Your task to perform on an android device: turn vacation reply on in the gmail app Image 0: 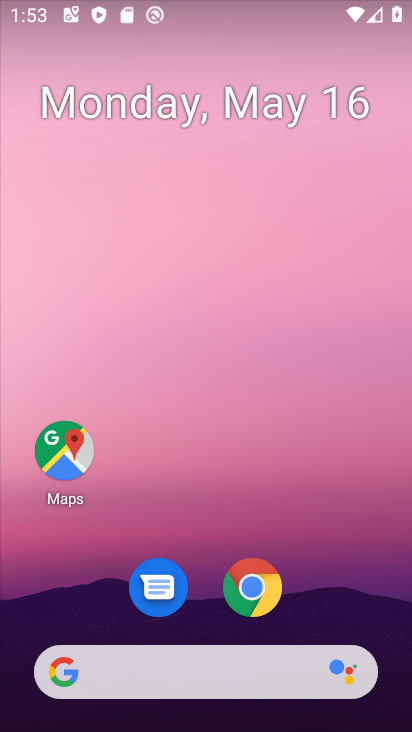
Step 0: drag from (375, 660) to (269, 223)
Your task to perform on an android device: turn vacation reply on in the gmail app Image 1: 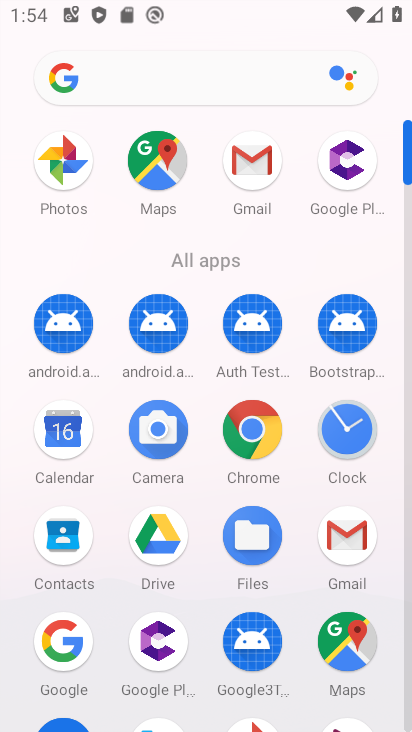
Step 1: click (352, 534)
Your task to perform on an android device: turn vacation reply on in the gmail app Image 2: 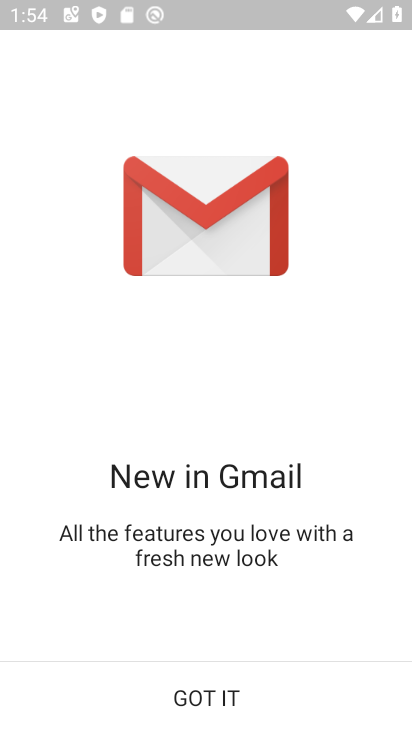
Step 2: click (224, 675)
Your task to perform on an android device: turn vacation reply on in the gmail app Image 3: 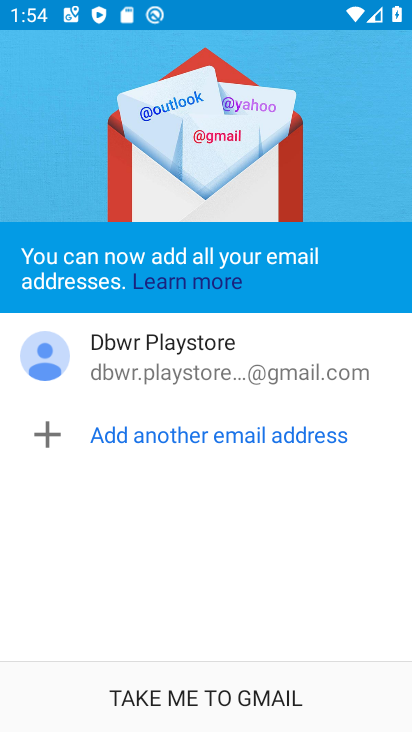
Step 3: click (233, 691)
Your task to perform on an android device: turn vacation reply on in the gmail app Image 4: 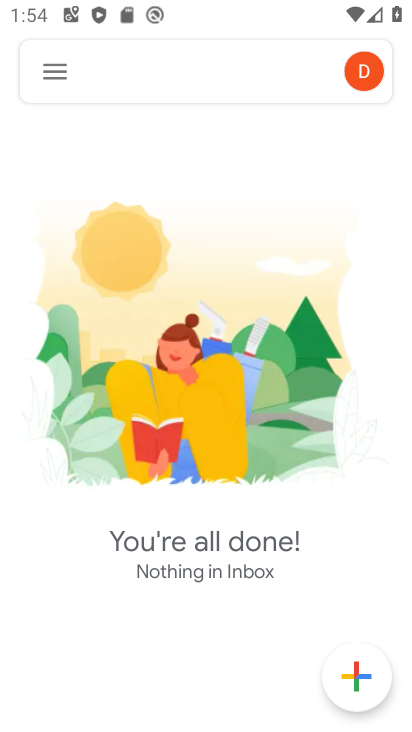
Step 4: click (58, 65)
Your task to perform on an android device: turn vacation reply on in the gmail app Image 5: 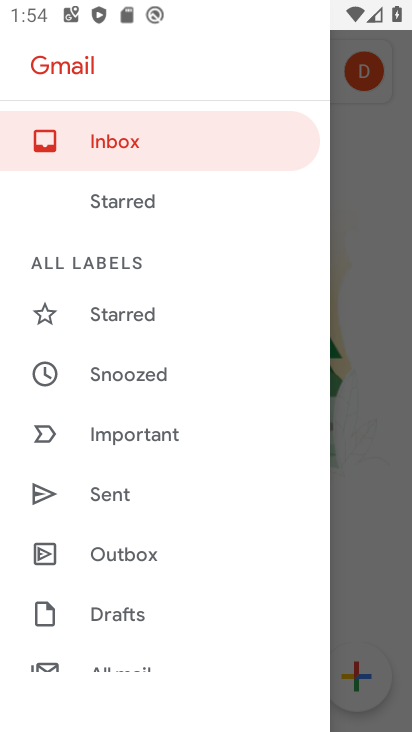
Step 5: drag from (165, 564) to (87, 281)
Your task to perform on an android device: turn vacation reply on in the gmail app Image 6: 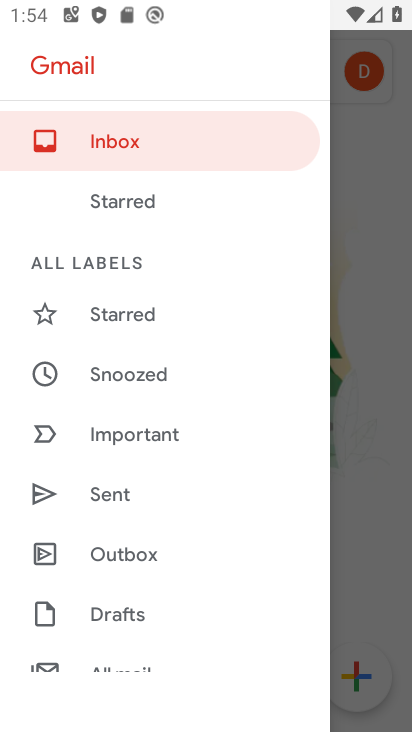
Step 6: drag from (148, 449) to (152, 300)
Your task to perform on an android device: turn vacation reply on in the gmail app Image 7: 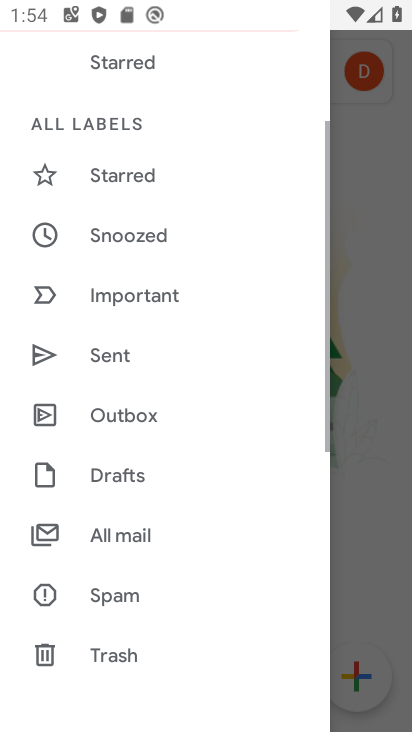
Step 7: drag from (193, 463) to (248, 256)
Your task to perform on an android device: turn vacation reply on in the gmail app Image 8: 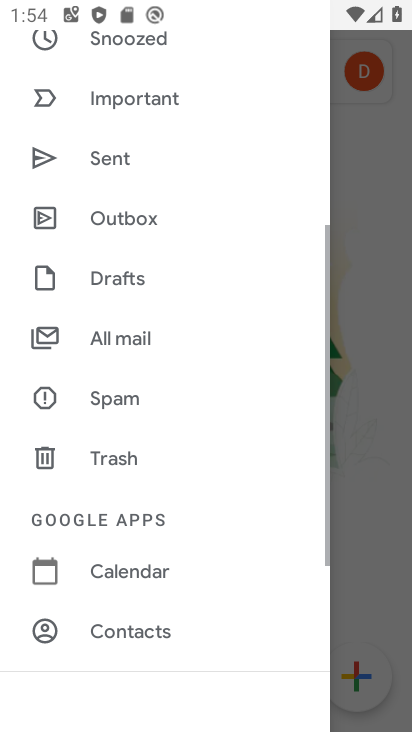
Step 8: drag from (179, 500) to (228, 228)
Your task to perform on an android device: turn vacation reply on in the gmail app Image 9: 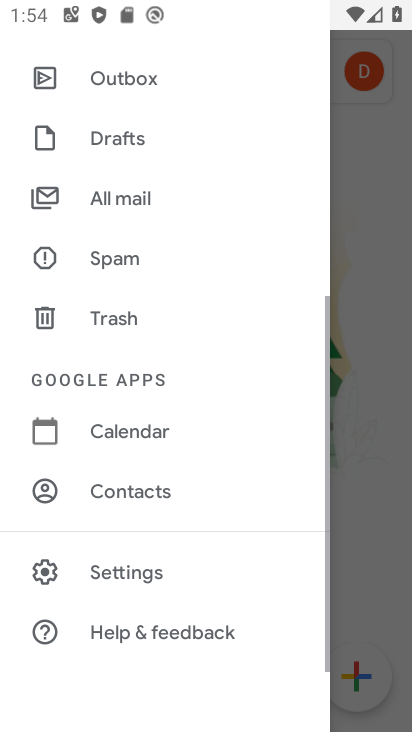
Step 9: click (118, 577)
Your task to perform on an android device: turn vacation reply on in the gmail app Image 10: 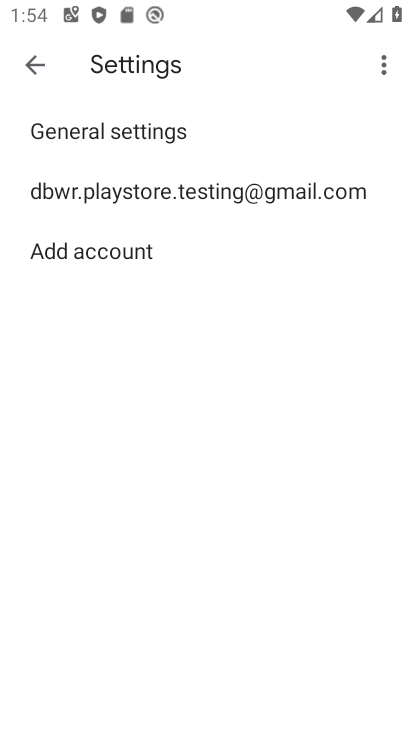
Step 10: click (141, 198)
Your task to perform on an android device: turn vacation reply on in the gmail app Image 11: 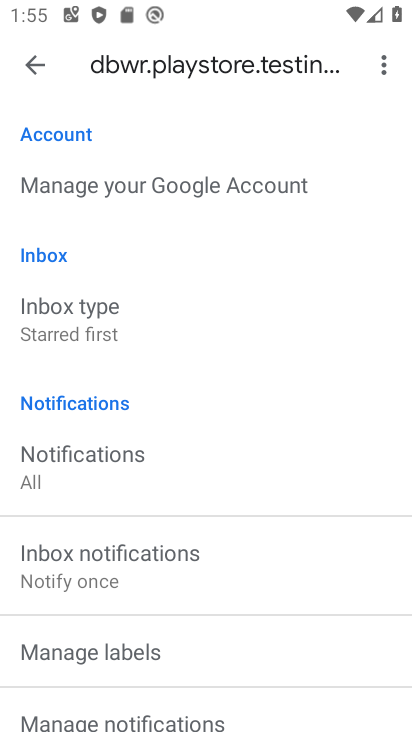
Step 11: drag from (204, 593) to (244, 290)
Your task to perform on an android device: turn vacation reply on in the gmail app Image 12: 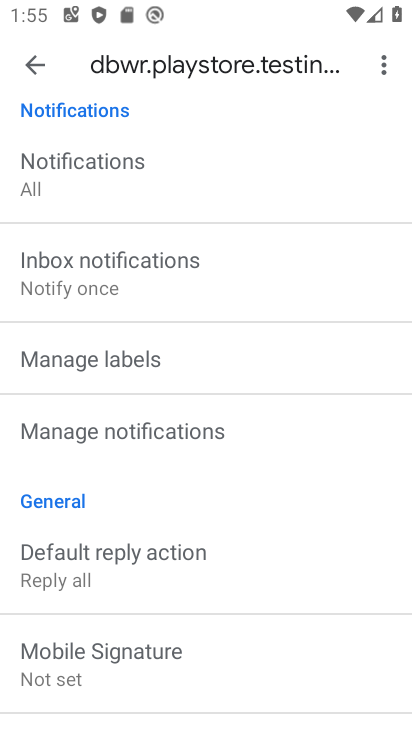
Step 12: drag from (154, 587) to (210, 273)
Your task to perform on an android device: turn vacation reply on in the gmail app Image 13: 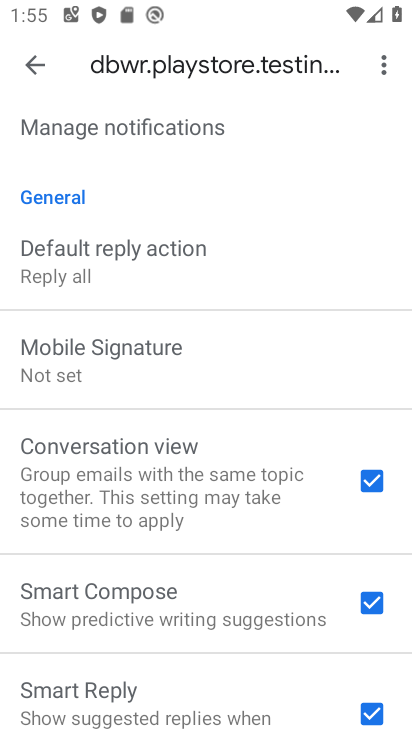
Step 13: drag from (131, 546) to (116, 196)
Your task to perform on an android device: turn vacation reply on in the gmail app Image 14: 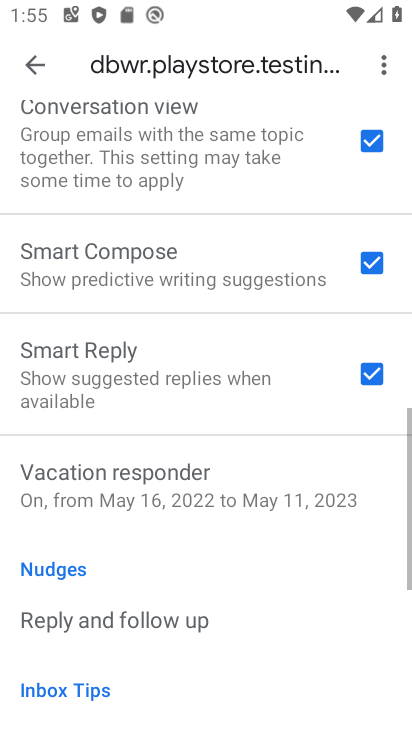
Step 14: drag from (175, 543) to (155, 163)
Your task to perform on an android device: turn vacation reply on in the gmail app Image 15: 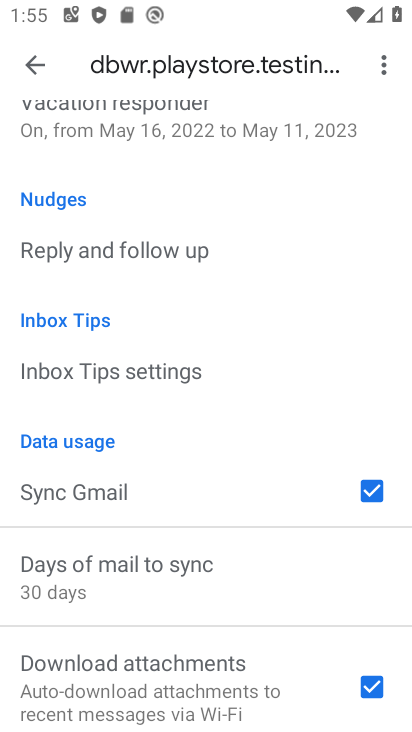
Step 15: drag from (98, 238) to (102, 591)
Your task to perform on an android device: turn vacation reply on in the gmail app Image 16: 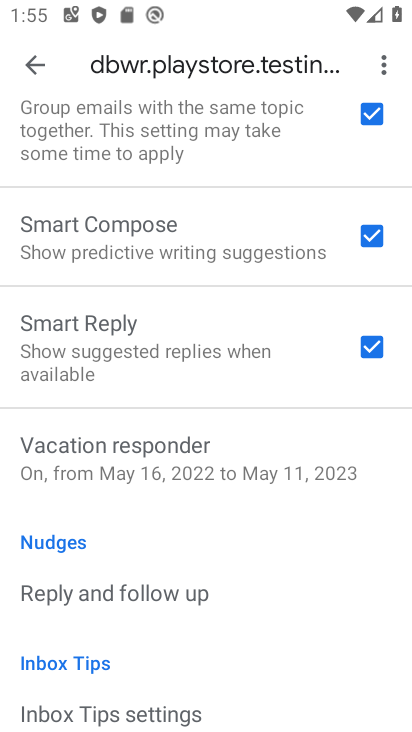
Step 16: click (181, 445)
Your task to perform on an android device: turn vacation reply on in the gmail app Image 17: 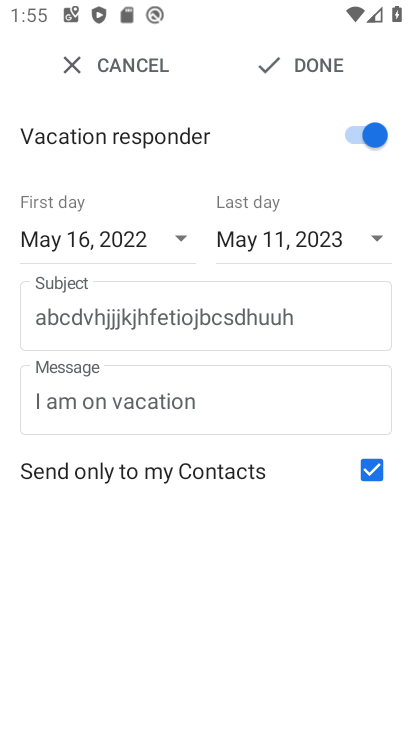
Step 17: click (368, 136)
Your task to perform on an android device: turn vacation reply on in the gmail app Image 18: 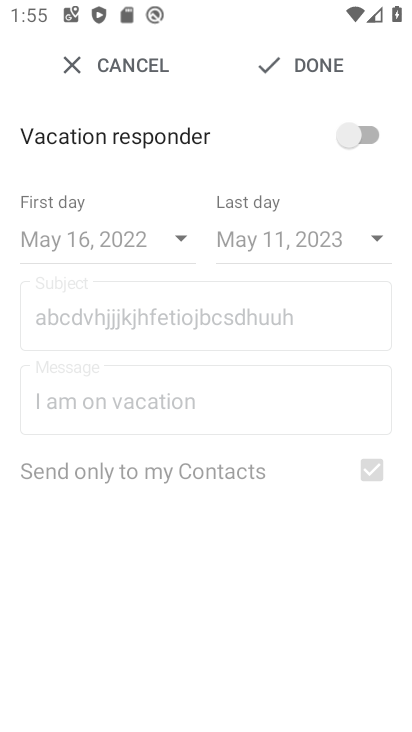
Step 18: task complete